Your task to perform on an android device: move a message to another label in the gmail app Image 0: 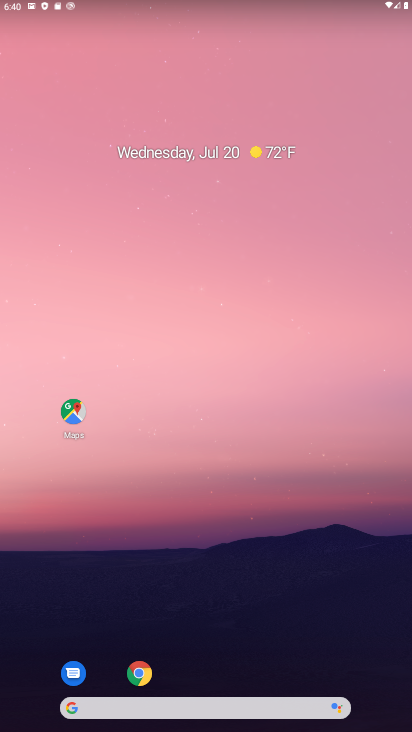
Step 0: drag from (345, 676) to (237, 80)
Your task to perform on an android device: move a message to another label in the gmail app Image 1: 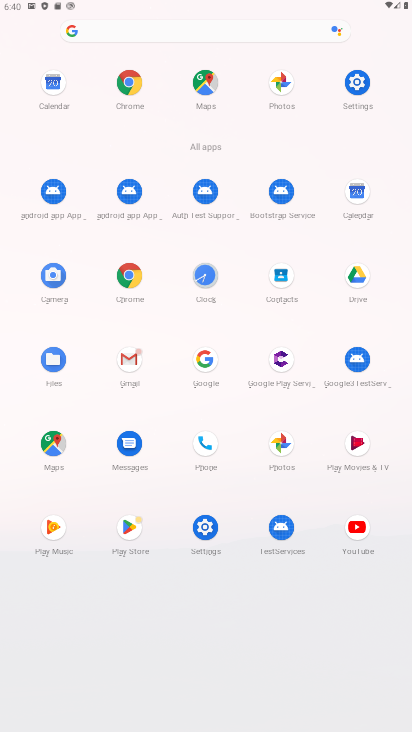
Step 1: click (124, 353)
Your task to perform on an android device: move a message to another label in the gmail app Image 2: 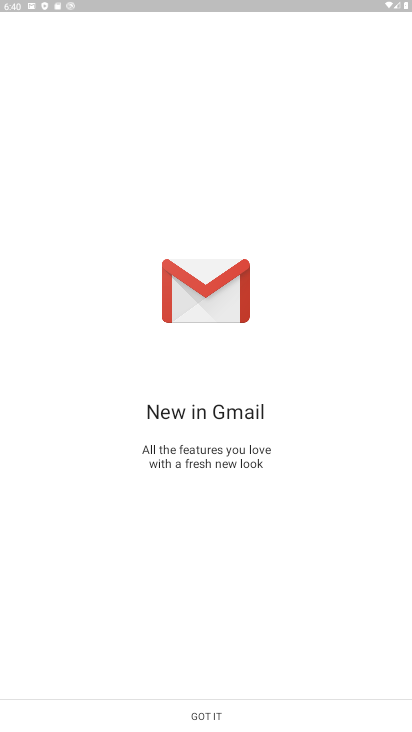
Step 2: click (199, 719)
Your task to perform on an android device: move a message to another label in the gmail app Image 3: 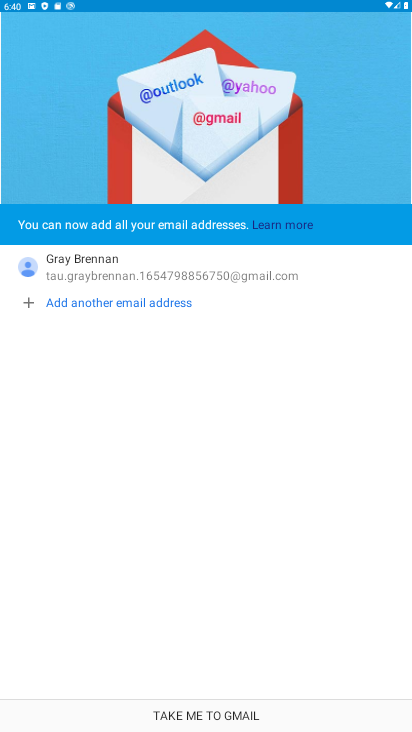
Step 3: click (199, 719)
Your task to perform on an android device: move a message to another label in the gmail app Image 4: 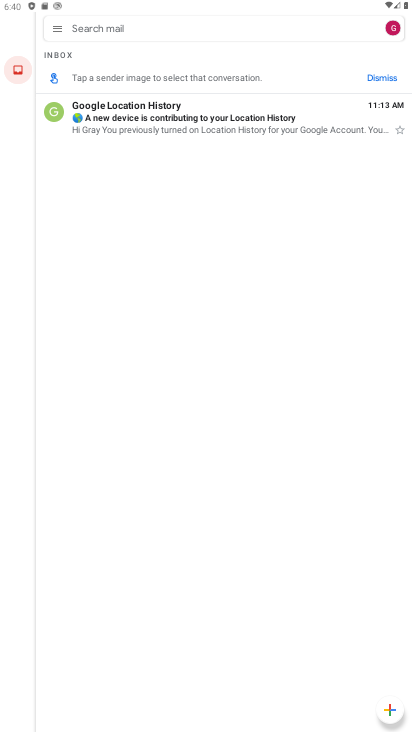
Step 4: task complete